Your task to perform on an android device: change timer sound Image 0: 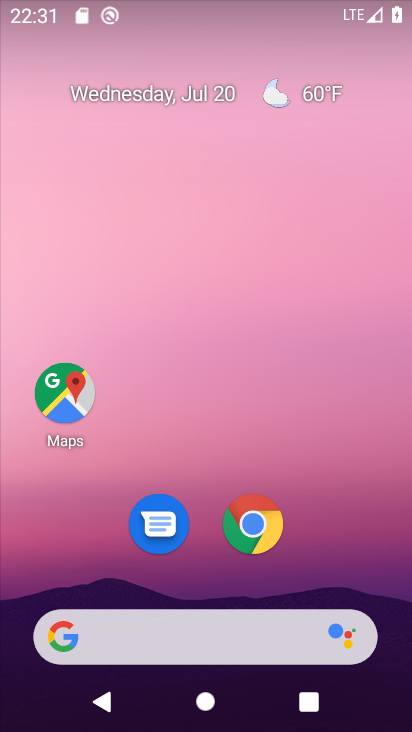
Step 0: drag from (323, 525) to (326, 116)
Your task to perform on an android device: change timer sound Image 1: 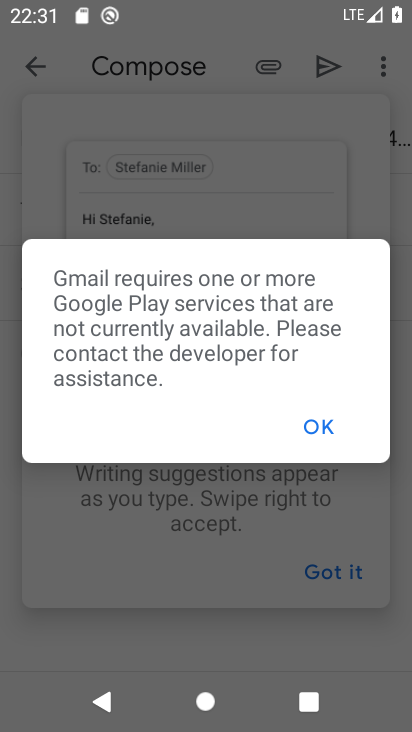
Step 1: press home button
Your task to perform on an android device: change timer sound Image 2: 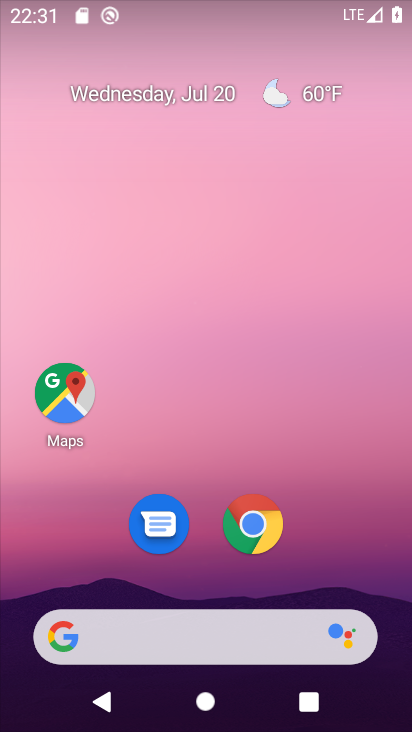
Step 2: drag from (334, 552) to (322, 60)
Your task to perform on an android device: change timer sound Image 3: 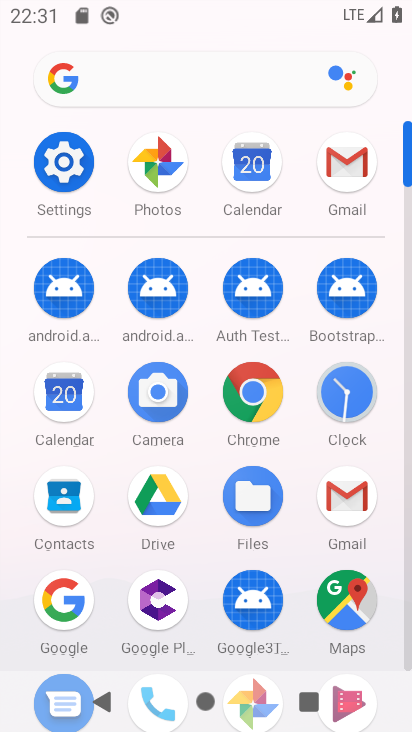
Step 3: click (350, 384)
Your task to perform on an android device: change timer sound Image 4: 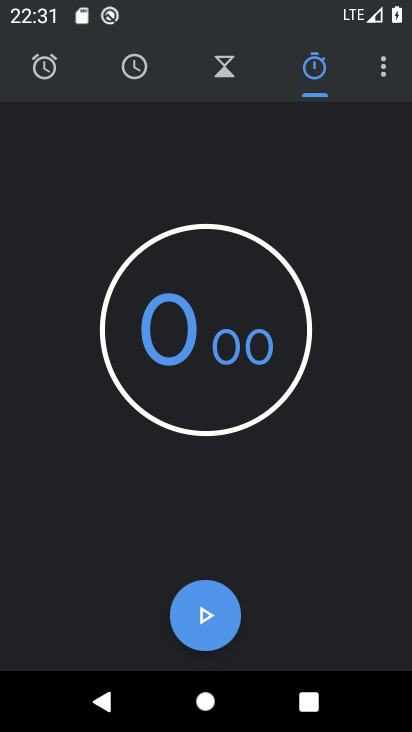
Step 4: click (385, 80)
Your task to perform on an android device: change timer sound Image 5: 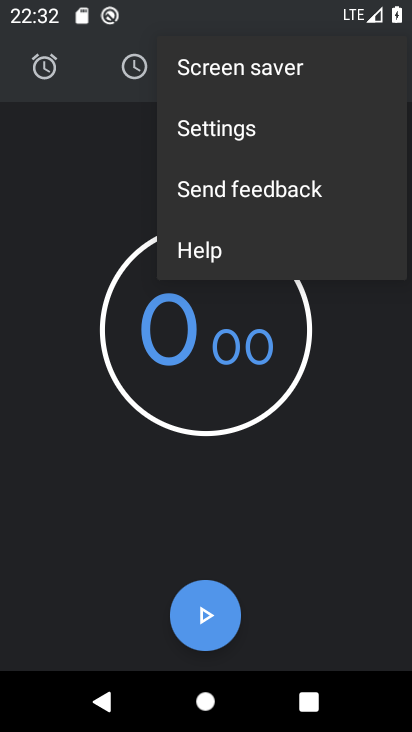
Step 5: click (262, 127)
Your task to perform on an android device: change timer sound Image 6: 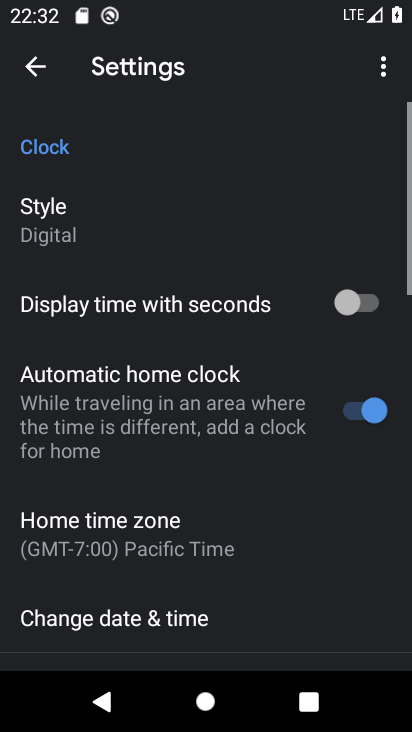
Step 6: drag from (244, 504) to (271, 6)
Your task to perform on an android device: change timer sound Image 7: 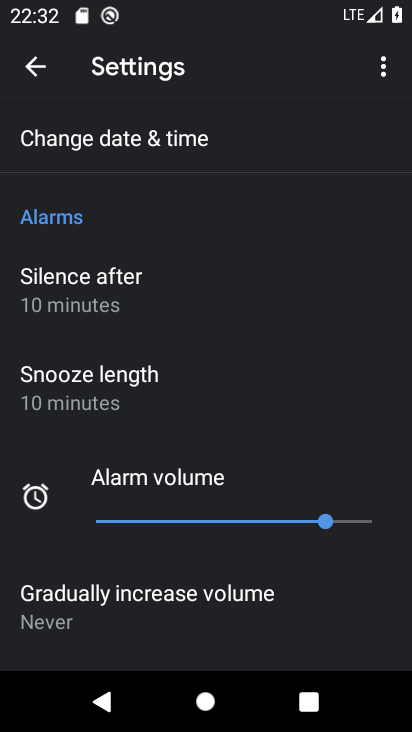
Step 7: drag from (203, 400) to (248, 23)
Your task to perform on an android device: change timer sound Image 8: 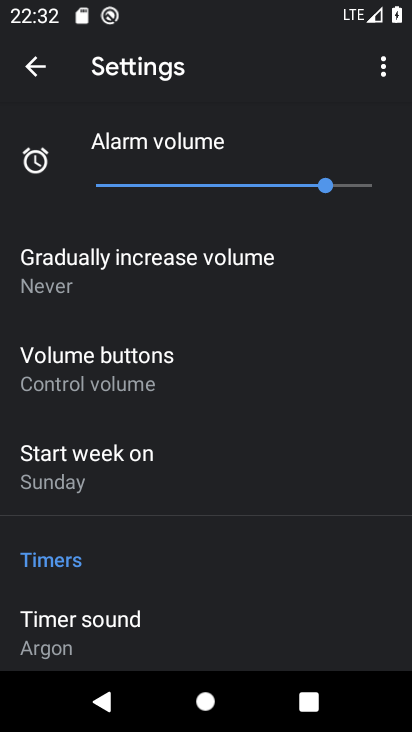
Step 8: drag from (127, 573) to (167, 335)
Your task to perform on an android device: change timer sound Image 9: 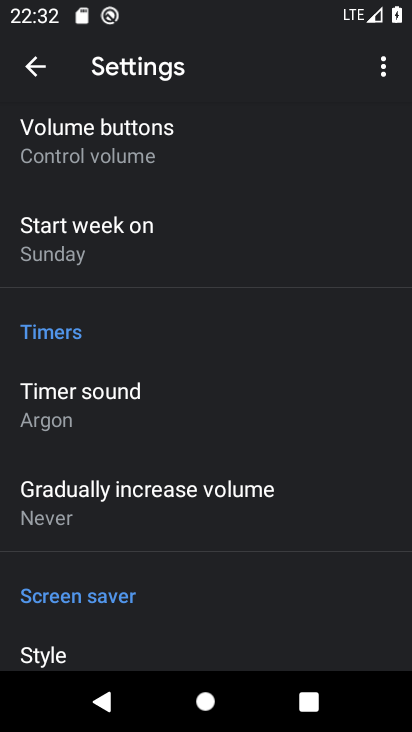
Step 9: click (94, 401)
Your task to perform on an android device: change timer sound Image 10: 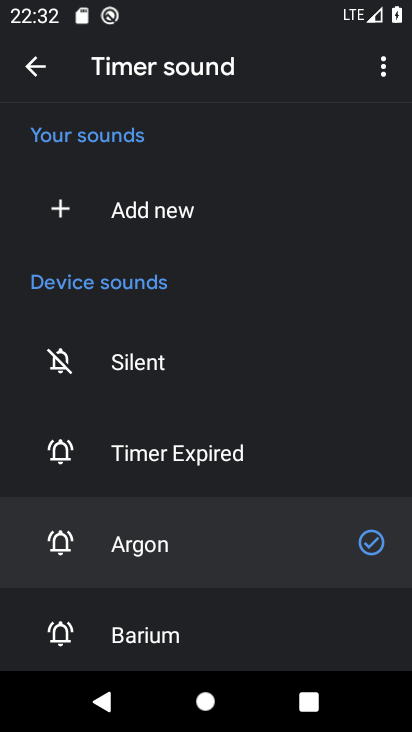
Step 10: click (69, 633)
Your task to perform on an android device: change timer sound Image 11: 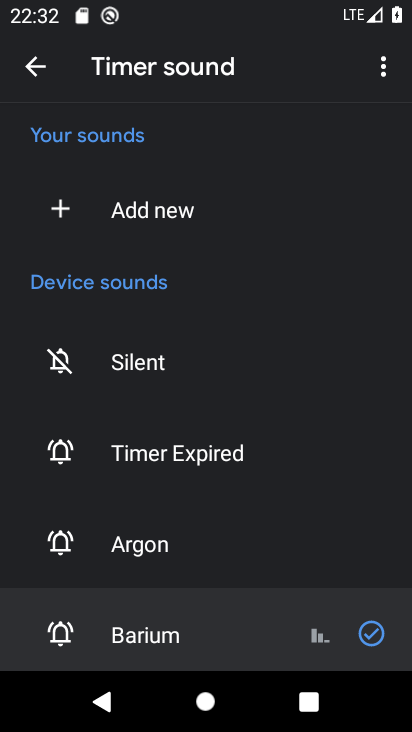
Step 11: task complete